Your task to perform on an android device: turn off wifi Image 0: 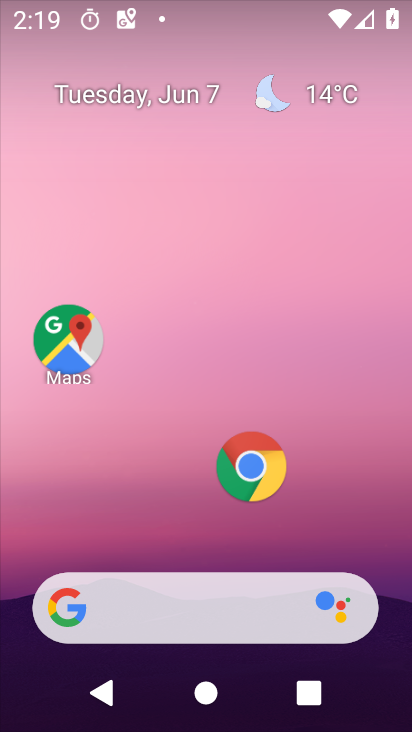
Step 0: drag from (197, 27) to (219, 525)
Your task to perform on an android device: turn off wifi Image 1: 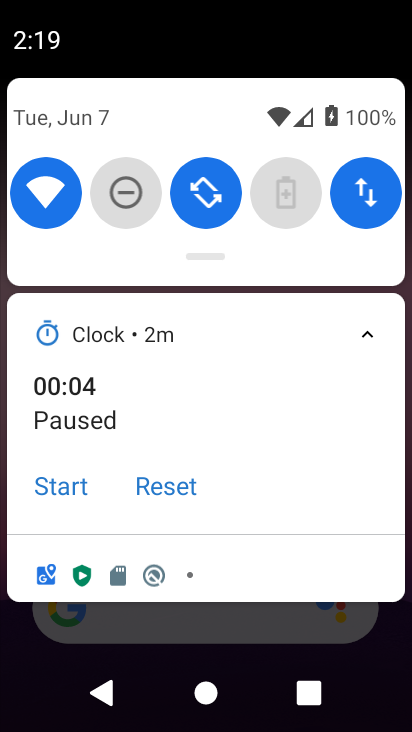
Step 1: click (21, 204)
Your task to perform on an android device: turn off wifi Image 2: 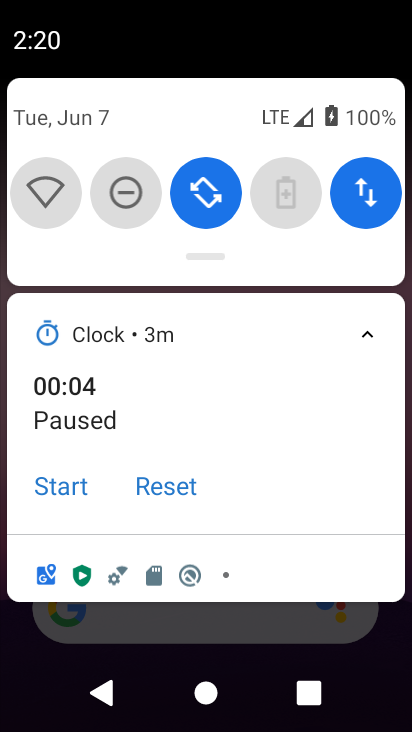
Step 2: task complete